Your task to perform on an android device: delete the emails in spam in the gmail app Image 0: 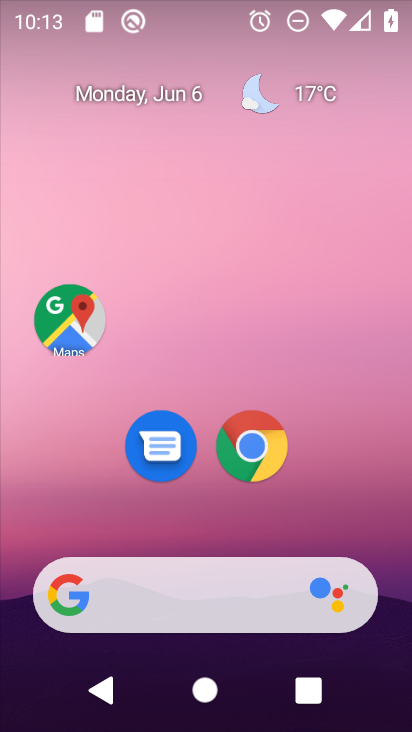
Step 0: drag from (198, 515) to (384, 36)
Your task to perform on an android device: delete the emails in spam in the gmail app Image 1: 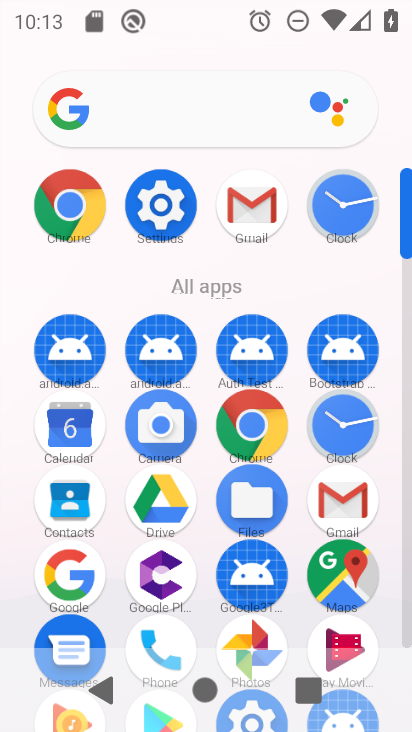
Step 1: click (239, 198)
Your task to perform on an android device: delete the emails in spam in the gmail app Image 2: 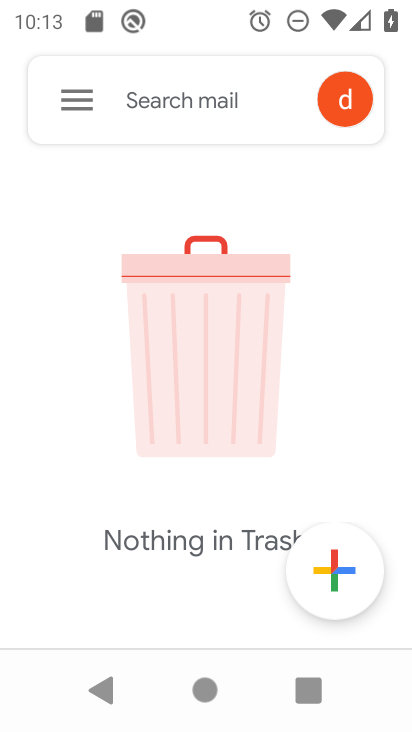
Step 2: click (64, 75)
Your task to perform on an android device: delete the emails in spam in the gmail app Image 3: 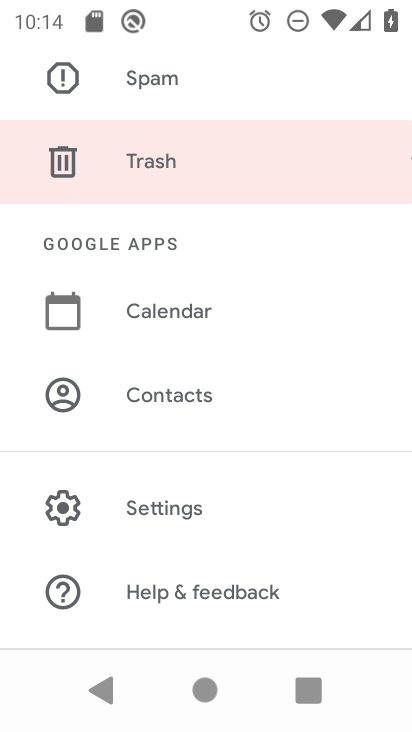
Step 3: click (158, 173)
Your task to perform on an android device: delete the emails in spam in the gmail app Image 4: 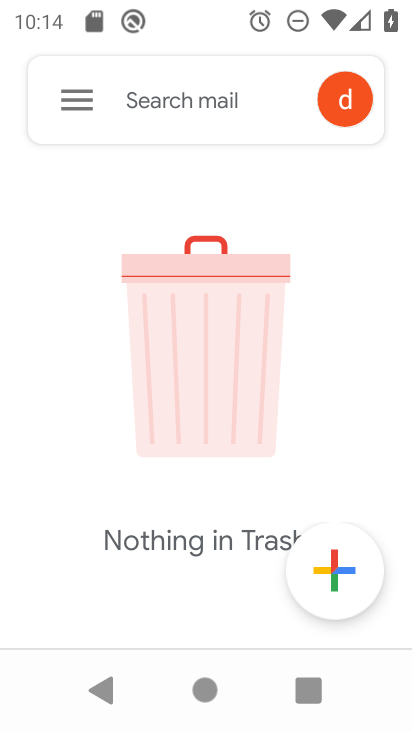
Step 4: click (104, 83)
Your task to perform on an android device: delete the emails in spam in the gmail app Image 5: 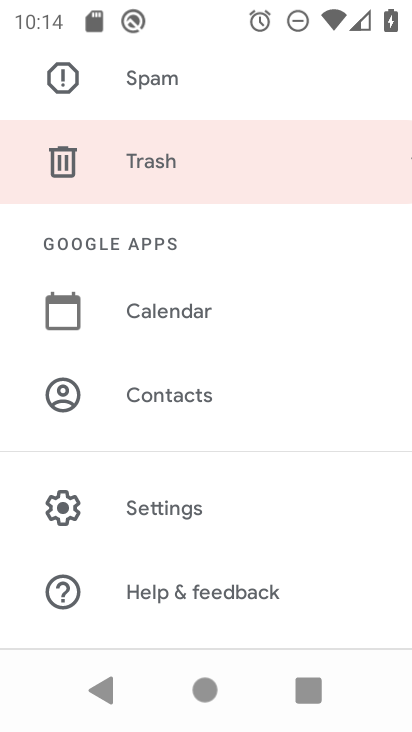
Step 5: click (162, 100)
Your task to perform on an android device: delete the emails in spam in the gmail app Image 6: 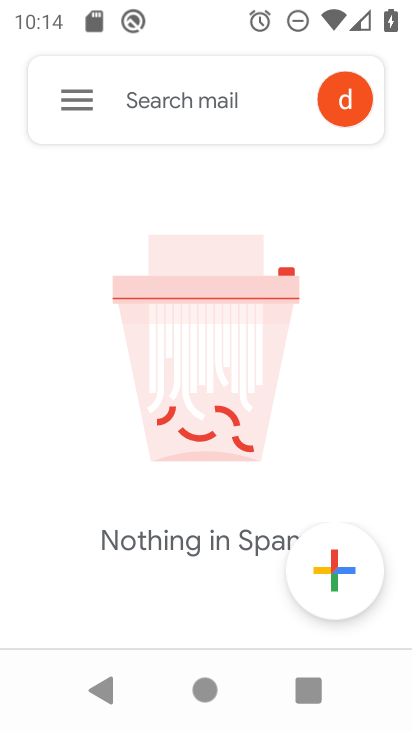
Step 6: task complete